Your task to perform on an android device: Open Maps and search for coffee Image 0: 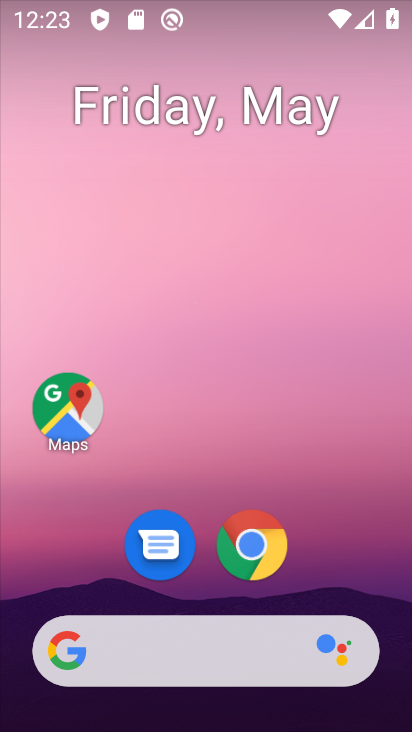
Step 0: click (63, 407)
Your task to perform on an android device: Open Maps and search for coffee Image 1: 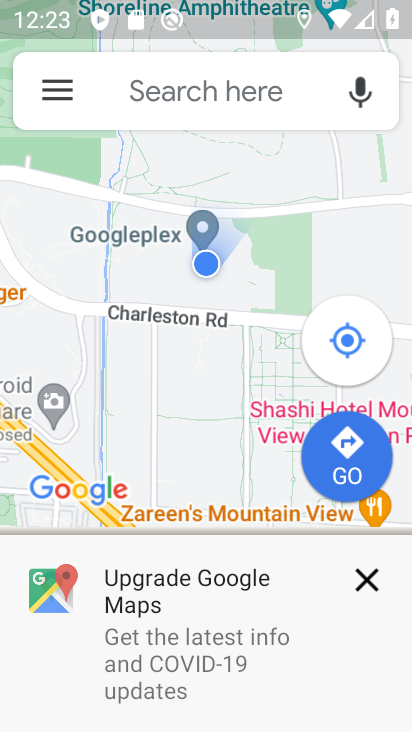
Step 1: click (158, 108)
Your task to perform on an android device: Open Maps and search for coffee Image 2: 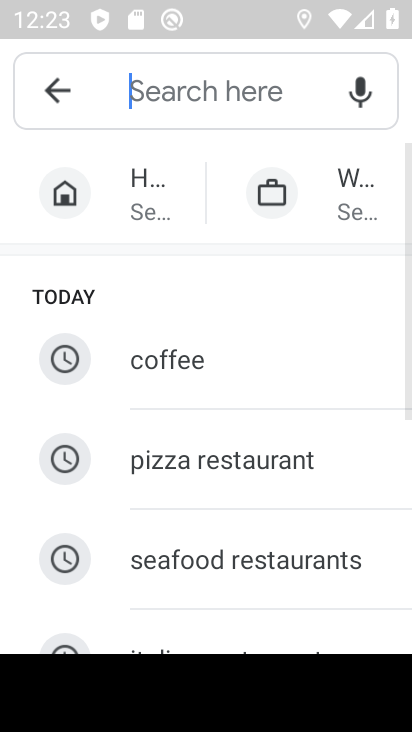
Step 2: click (203, 362)
Your task to perform on an android device: Open Maps and search for coffee Image 3: 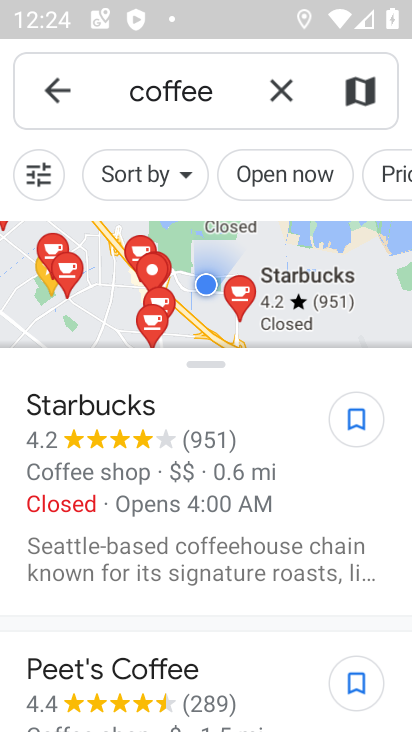
Step 3: task complete